Your task to perform on an android device: Open eBay Image 0: 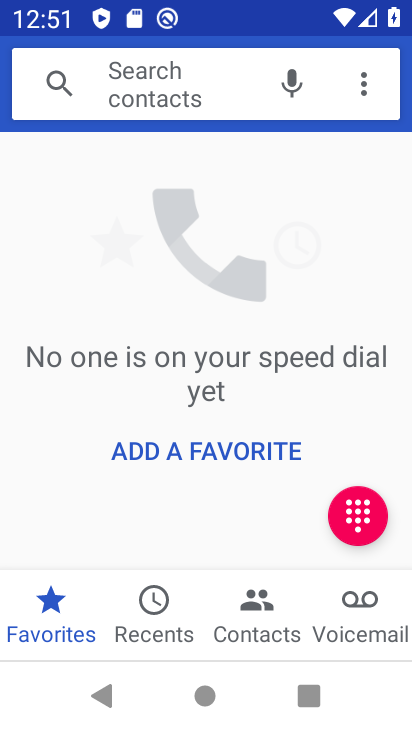
Step 0: press home button
Your task to perform on an android device: Open eBay Image 1: 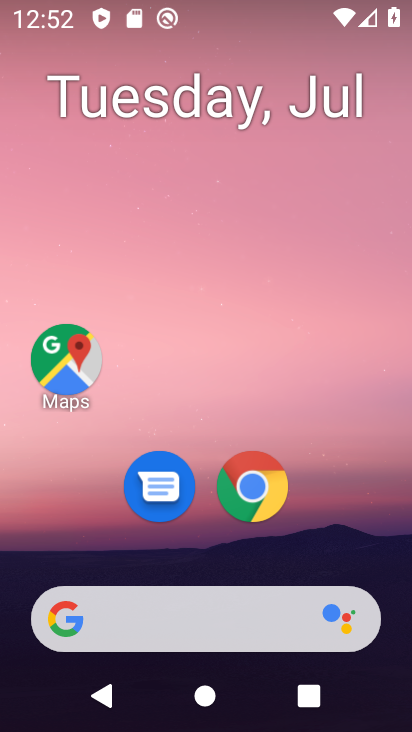
Step 1: drag from (367, 539) to (351, 71)
Your task to perform on an android device: Open eBay Image 2: 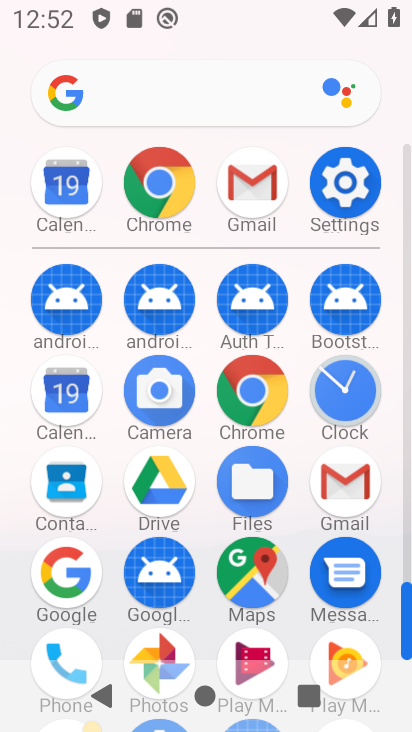
Step 2: click (260, 391)
Your task to perform on an android device: Open eBay Image 3: 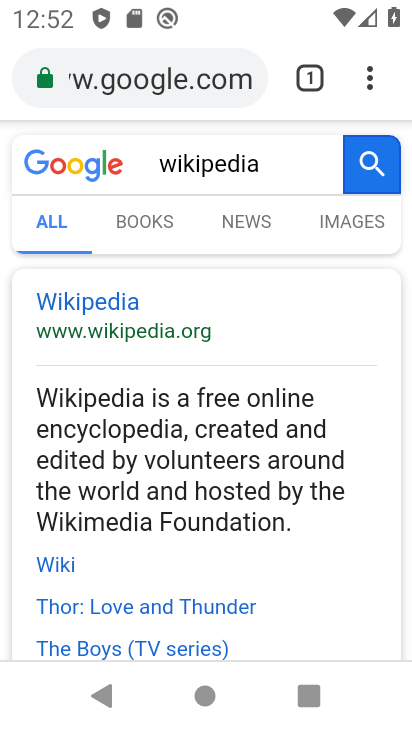
Step 3: click (211, 83)
Your task to perform on an android device: Open eBay Image 4: 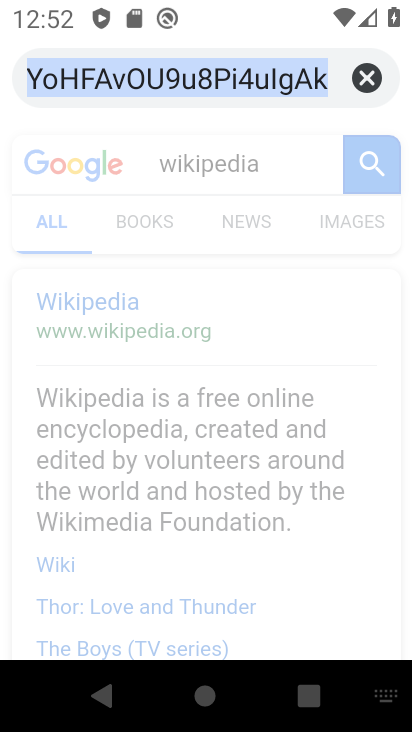
Step 4: type "ebay"
Your task to perform on an android device: Open eBay Image 5: 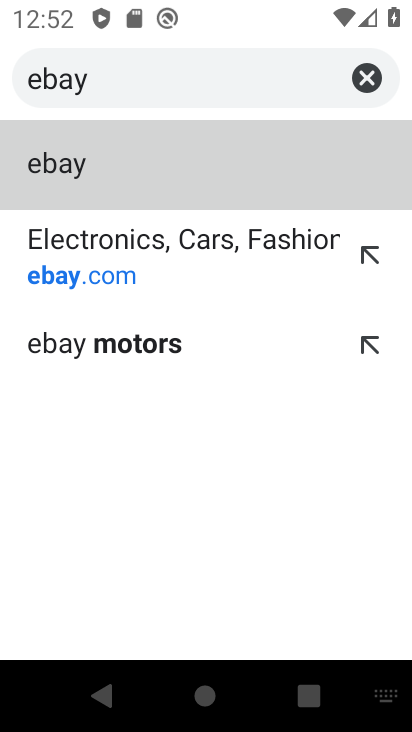
Step 5: click (182, 167)
Your task to perform on an android device: Open eBay Image 6: 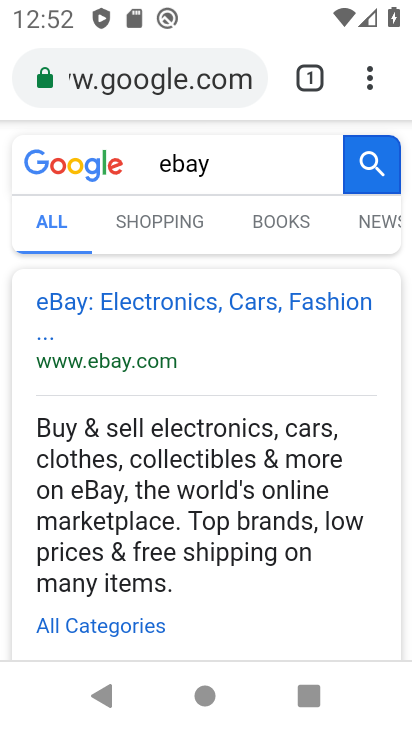
Step 6: task complete